Your task to perform on an android device: Set the phone to "Do not disturb". Image 0: 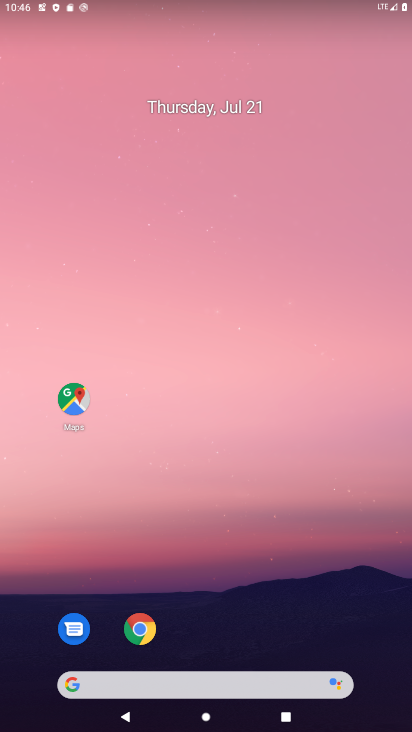
Step 0: press home button
Your task to perform on an android device: Set the phone to "Do not disturb". Image 1: 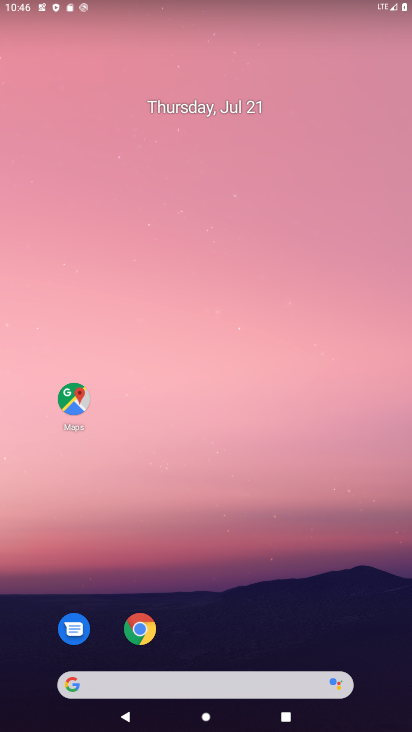
Step 1: drag from (211, 2) to (197, 265)
Your task to perform on an android device: Set the phone to "Do not disturb". Image 2: 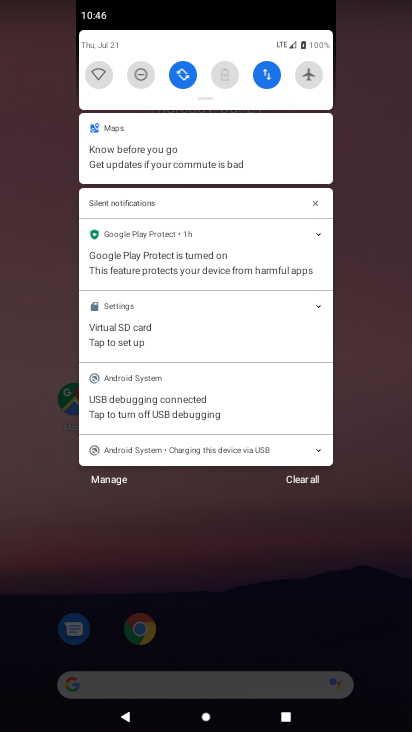
Step 2: click (145, 76)
Your task to perform on an android device: Set the phone to "Do not disturb". Image 3: 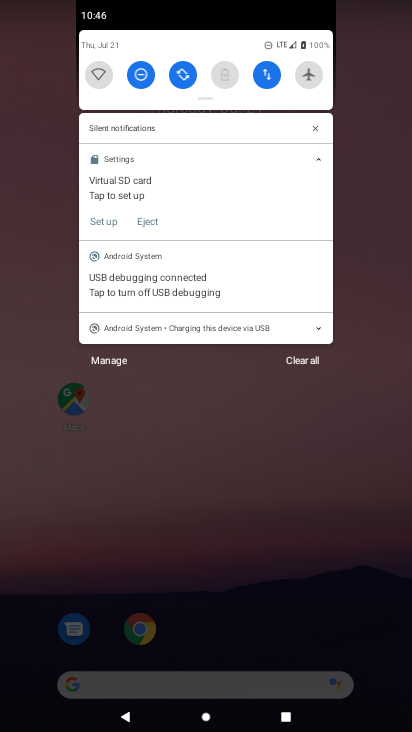
Step 3: task complete